Your task to perform on an android device: Open settings on Google Maps Image 0: 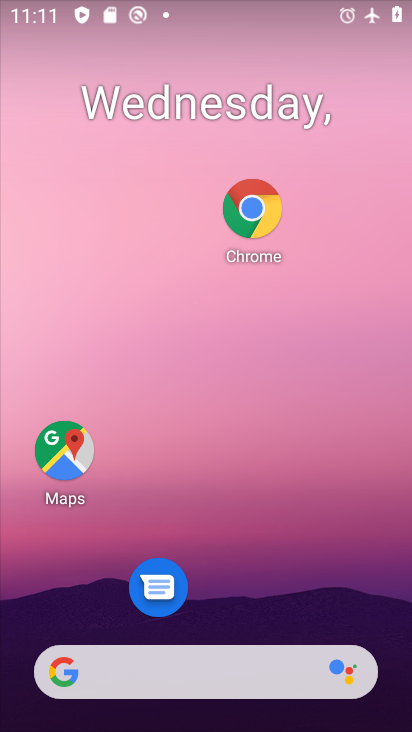
Step 0: click (70, 456)
Your task to perform on an android device: Open settings on Google Maps Image 1: 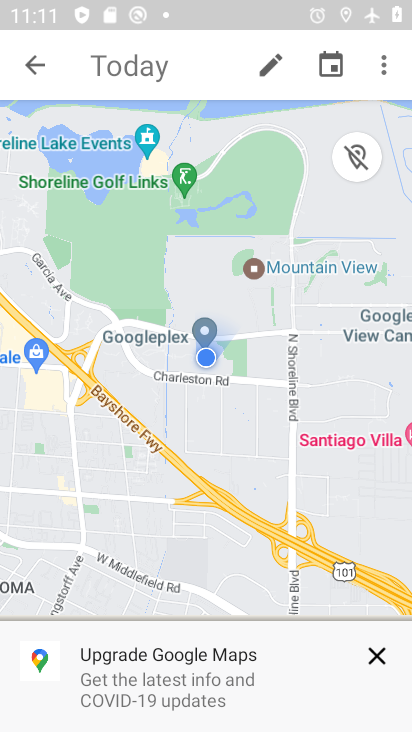
Step 1: click (25, 74)
Your task to perform on an android device: Open settings on Google Maps Image 2: 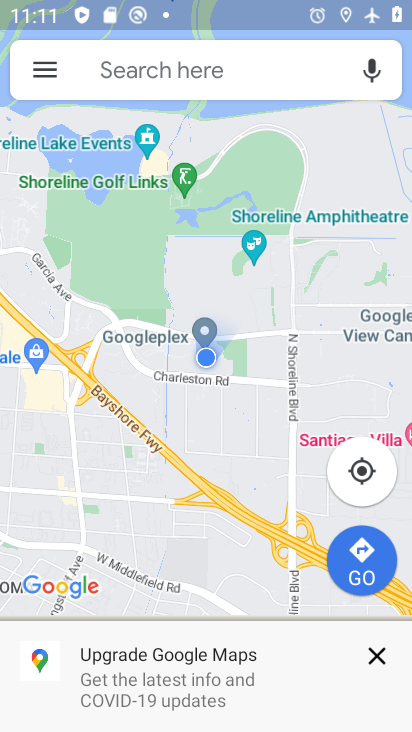
Step 2: click (47, 74)
Your task to perform on an android device: Open settings on Google Maps Image 3: 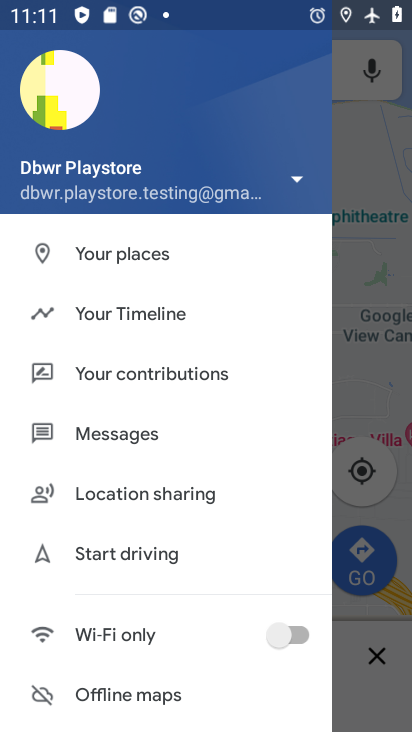
Step 3: drag from (196, 608) to (208, 430)
Your task to perform on an android device: Open settings on Google Maps Image 4: 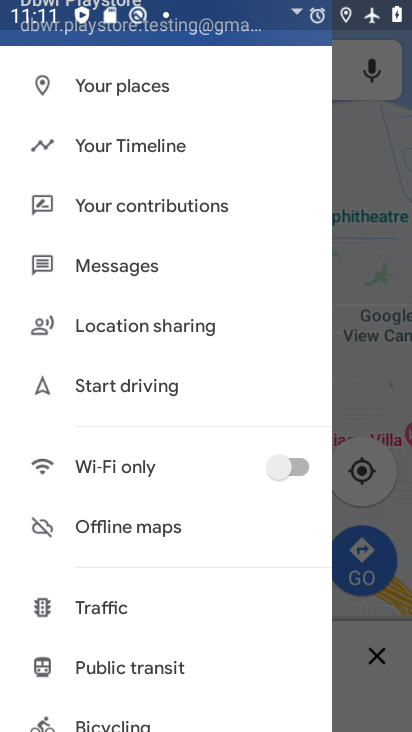
Step 4: drag from (123, 696) to (156, 430)
Your task to perform on an android device: Open settings on Google Maps Image 5: 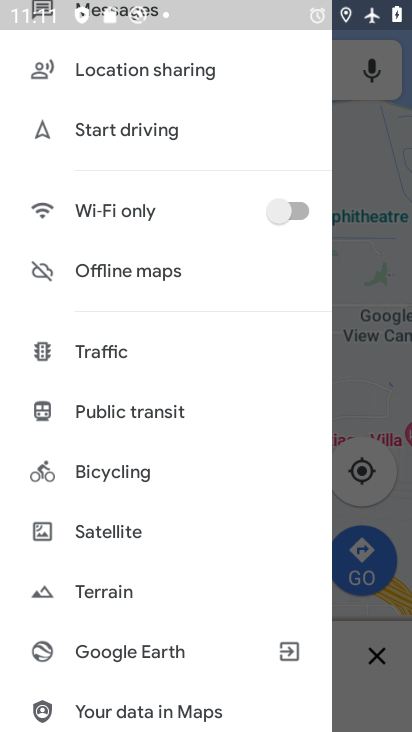
Step 5: drag from (152, 675) to (213, 299)
Your task to perform on an android device: Open settings on Google Maps Image 6: 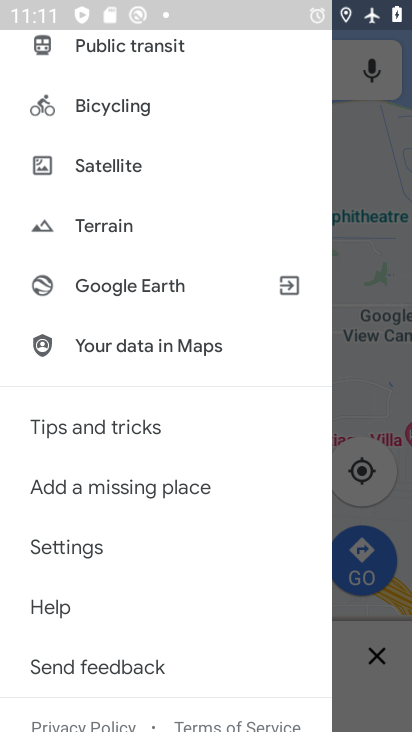
Step 6: click (76, 544)
Your task to perform on an android device: Open settings on Google Maps Image 7: 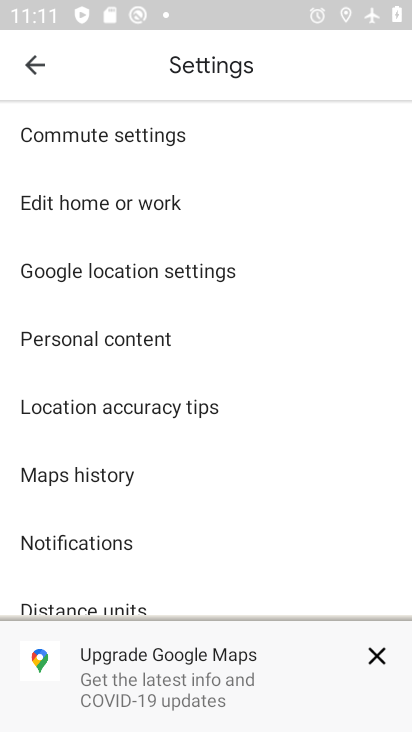
Step 7: task complete